Your task to perform on an android device: Go to Google maps Image 0: 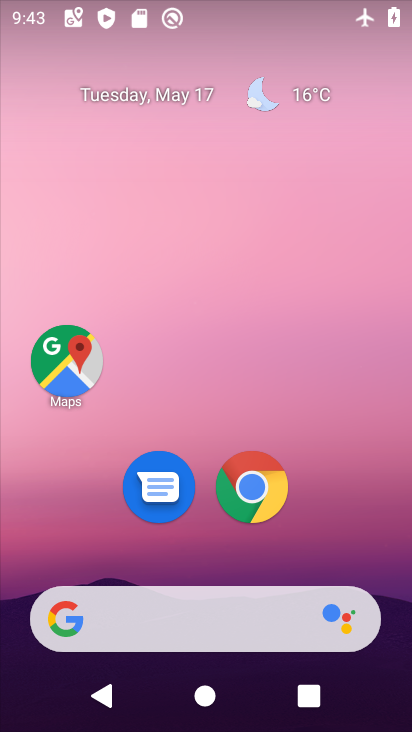
Step 0: drag from (205, 554) to (197, 191)
Your task to perform on an android device: Go to Google maps Image 1: 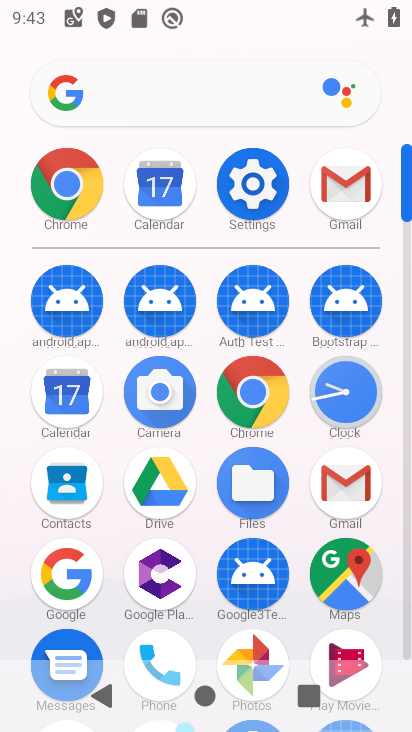
Step 1: click (335, 556)
Your task to perform on an android device: Go to Google maps Image 2: 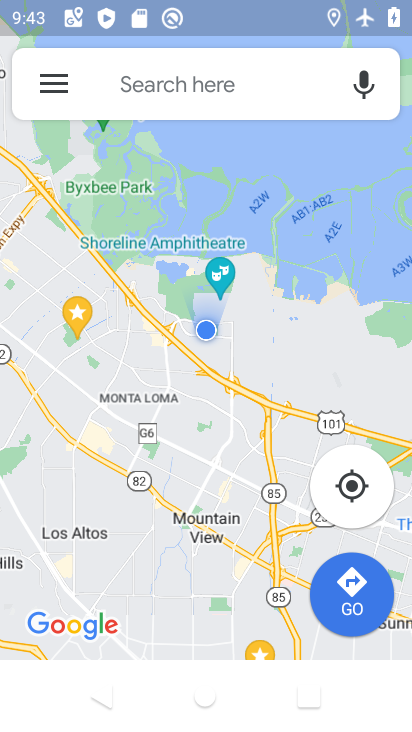
Step 2: task complete